Your task to perform on an android device: Open Reddit.com Image 0: 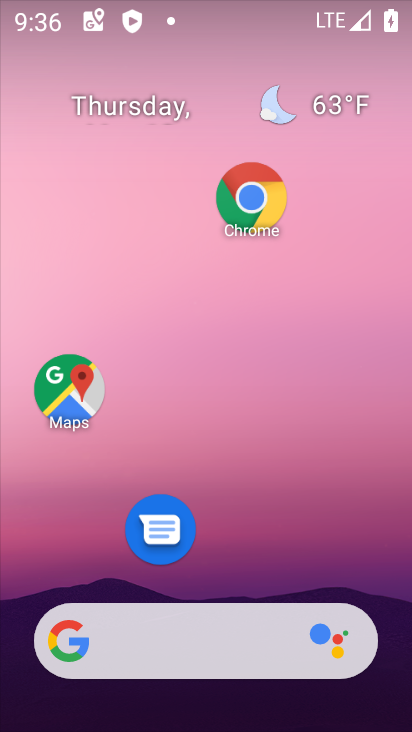
Step 0: click (266, 207)
Your task to perform on an android device: Open Reddit.com Image 1: 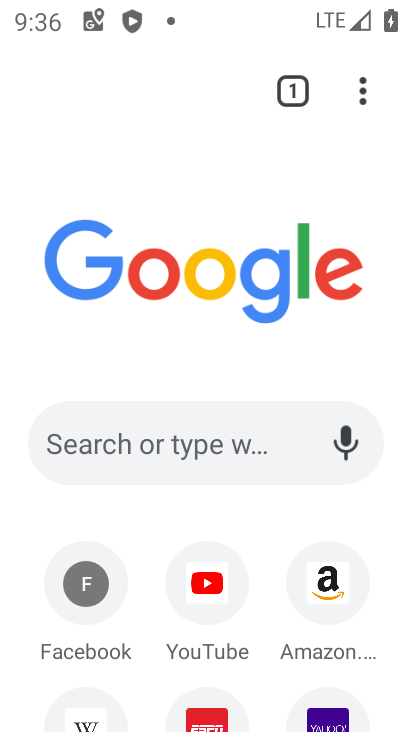
Step 1: click (213, 475)
Your task to perform on an android device: Open Reddit.com Image 2: 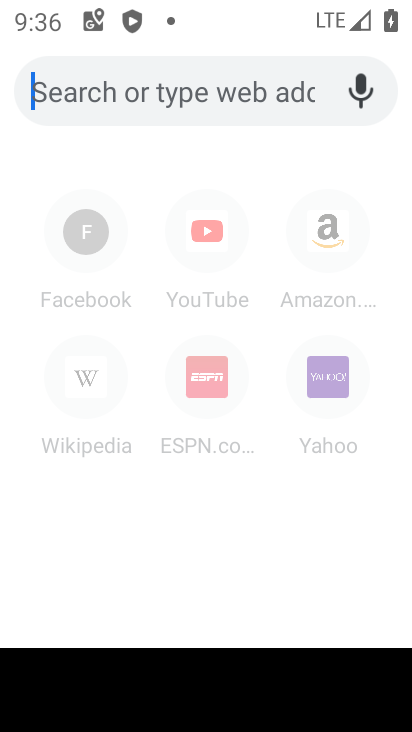
Step 2: type "reddit"
Your task to perform on an android device: Open Reddit.com Image 3: 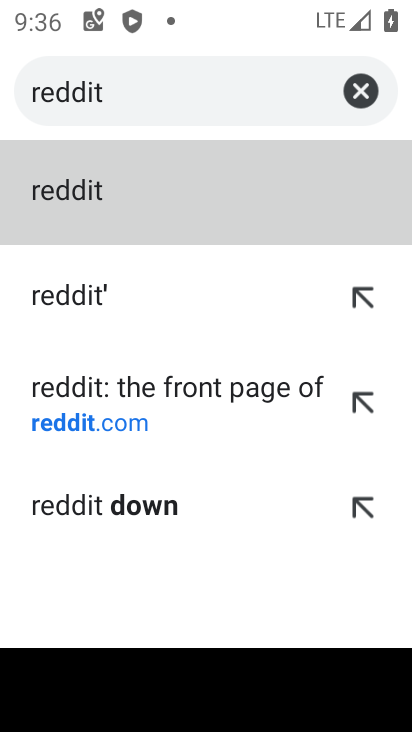
Step 3: click (326, 401)
Your task to perform on an android device: Open Reddit.com Image 4: 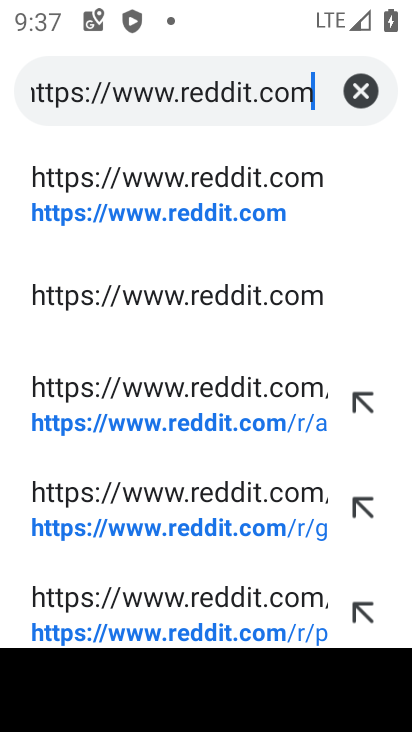
Step 4: click (239, 171)
Your task to perform on an android device: Open Reddit.com Image 5: 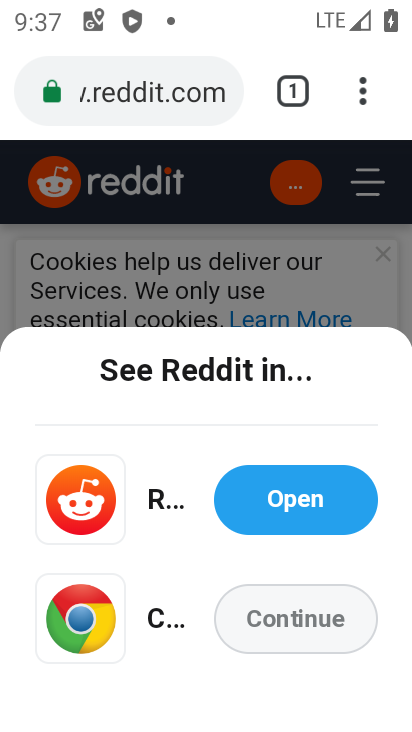
Step 5: click (290, 633)
Your task to perform on an android device: Open Reddit.com Image 6: 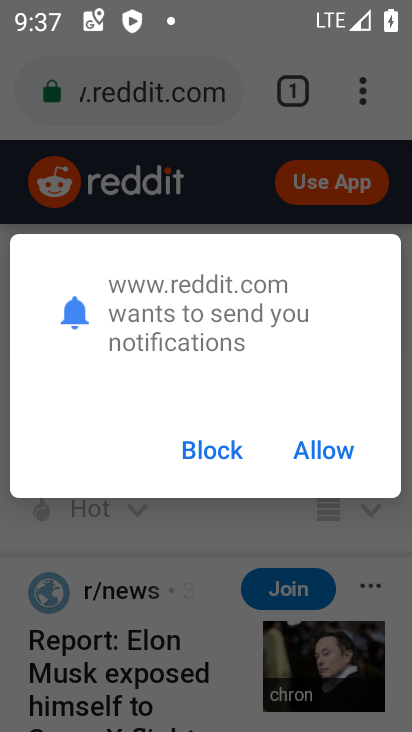
Step 6: task complete